Your task to perform on an android device: set the stopwatch Image 0: 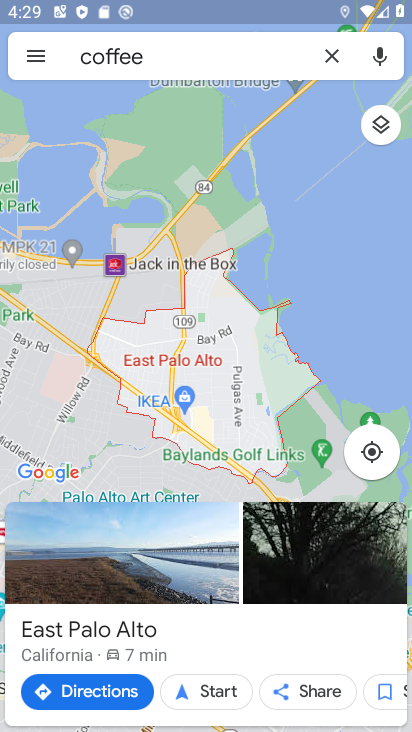
Step 0: press back button
Your task to perform on an android device: set the stopwatch Image 1: 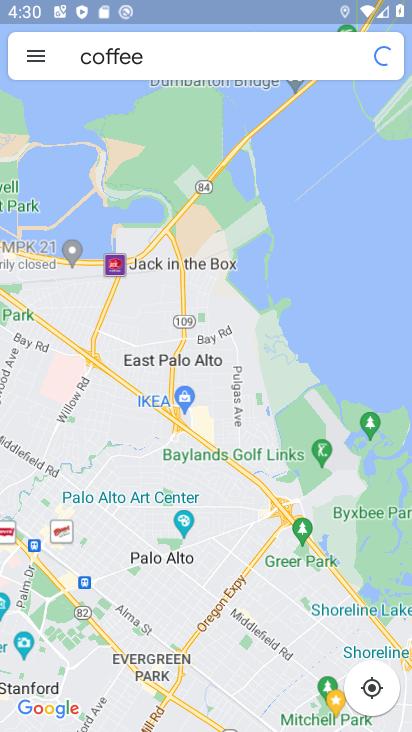
Step 1: press back button
Your task to perform on an android device: set the stopwatch Image 2: 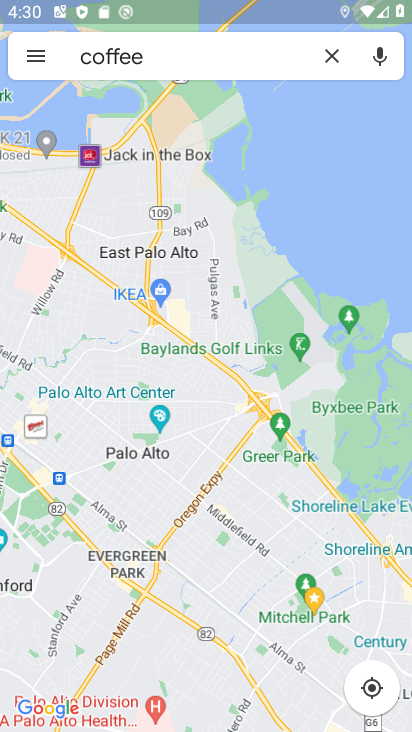
Step 2: press back button
Your task to perform on an android device: set the stopwatch Image 3: 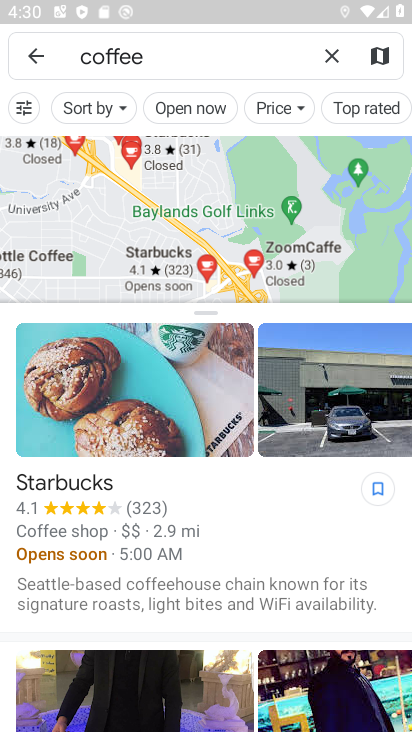
Step 3: press home button
Your task to perform on an android device: set the stopwatch Image 4: 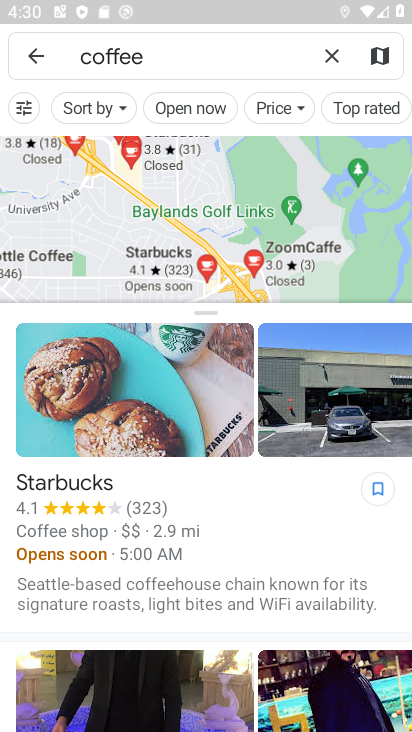
Step 4: press home button
Your task to perform on an android device: set the stopwatch Image 5: 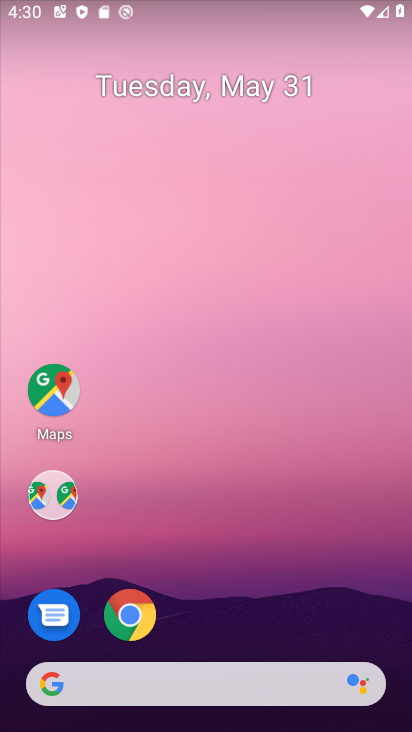
Step 5: drag from (230, 518) to (127, 86)
Your task to perform on an android device: set the stopwatch Image 6: 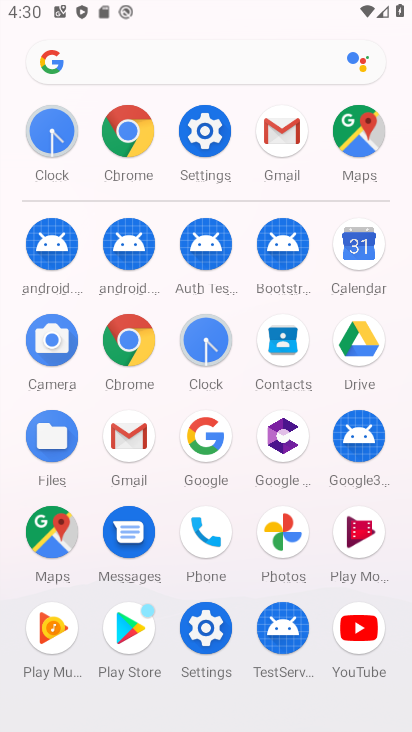
Step 6: click (206, 350)
Your task to perform on an android device: set the stopwatch Image 7: 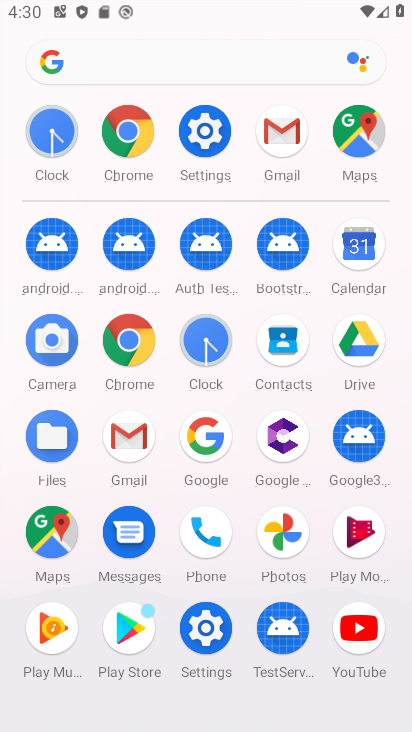
Step 7: click (206, 350)
Your task to perform on an android device: set the stopwatch Image 8: 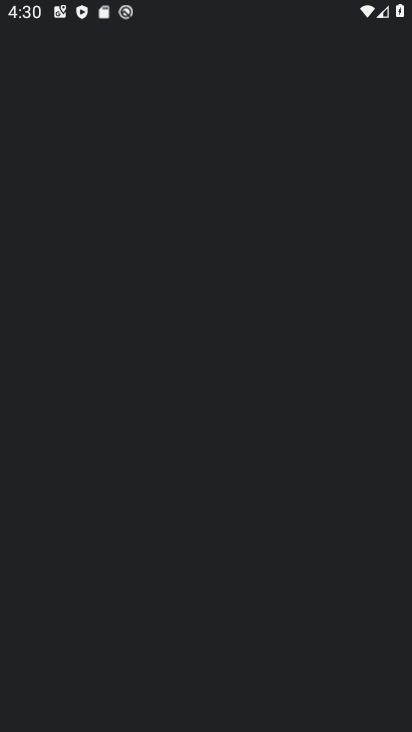
Step 8: click (206, 350)
Your task to perform on an android device: set the stopwatch Image 9: 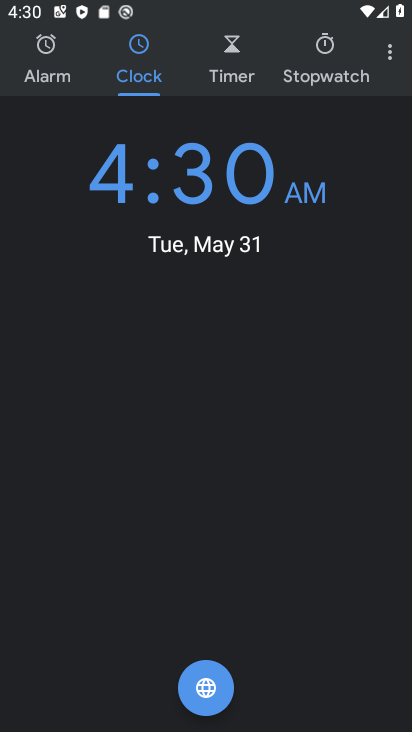
Step 9: click (205, 347)
Your task to perform on an android device: set the stopwatch Image 10: 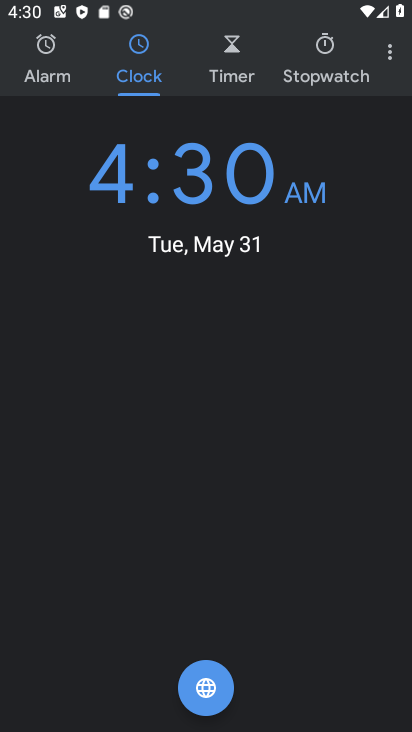
Step 10: click (206, 337)
Your task to perform on an android device: set the stopwatch Image 11: 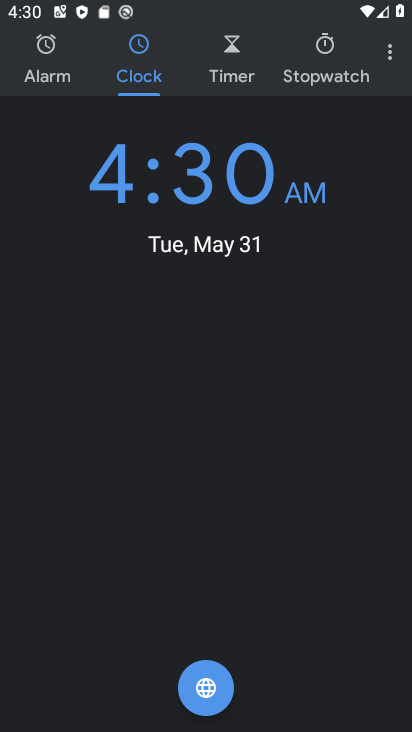
Step 11: click (317, 67)
Your task to perform on an android device: set the stopwatch Image 12: 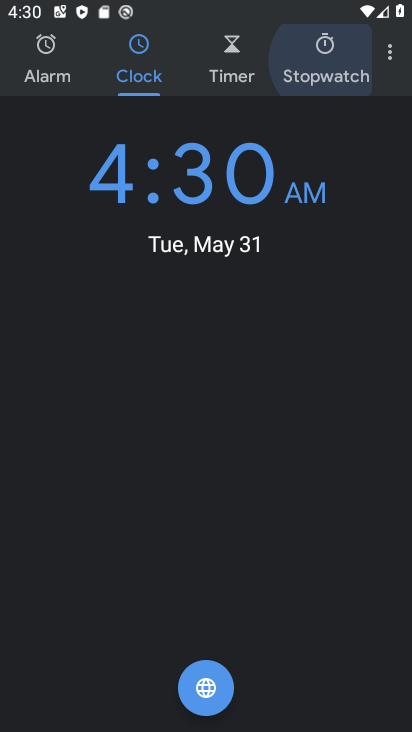
Step 12: click (318, 66)
Your task to perform on an android device: set the stopwatch Image 13: 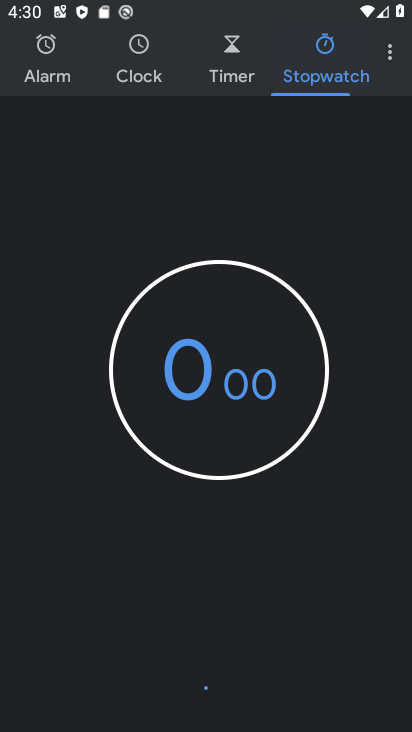
Step 13: click (319, 66)
Your task to perform on an android device: set the stopwatch Image 14: 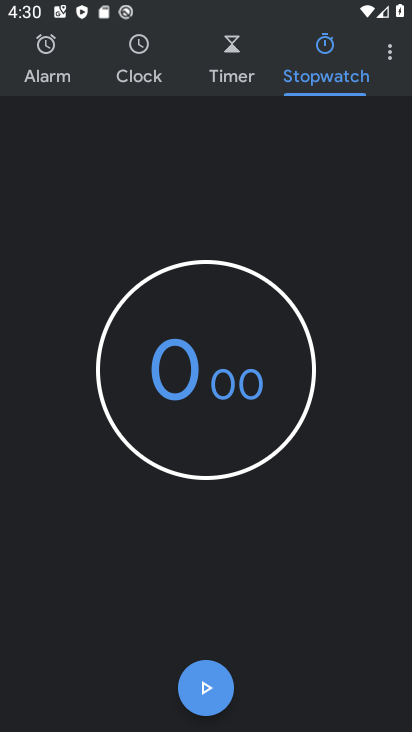
Step 14: click (208, 699)
Your task to perform on an android device: set the stopwatch Image 15: 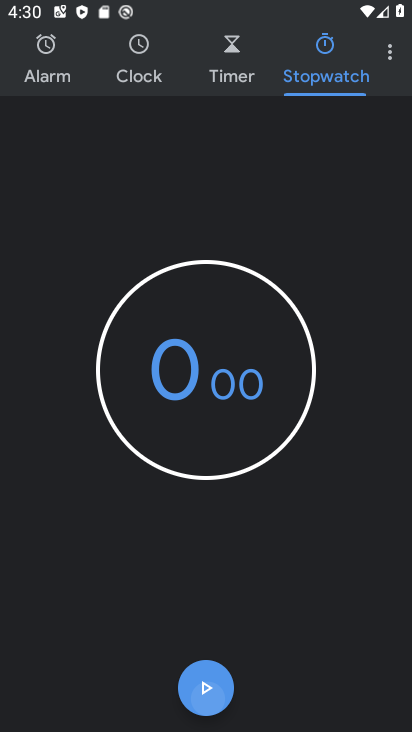
Step 15: click (209, 698)
Your task to perform on an android device: set the stopwatch Image 16: 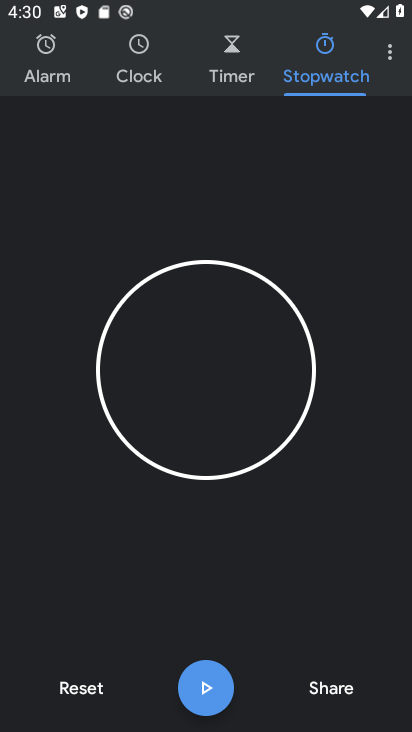
Step 16: click (198, 679)
Your task to perform on an android device: set the stopwatch Image 17: 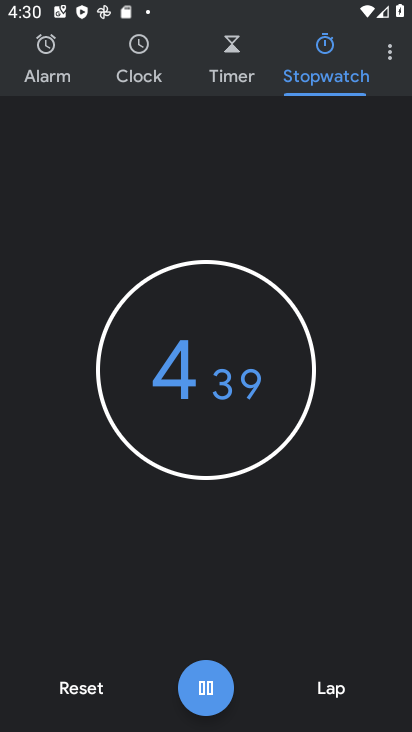
Step 17: click (209, 685)
Your task to perform on an android device: set the stopwatch Image 18: 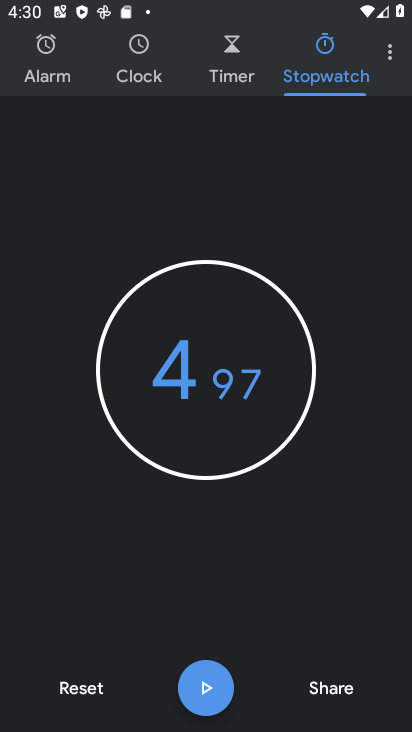
Step 18: task complete